Your task to perform on an android device: Open maps Image 0: 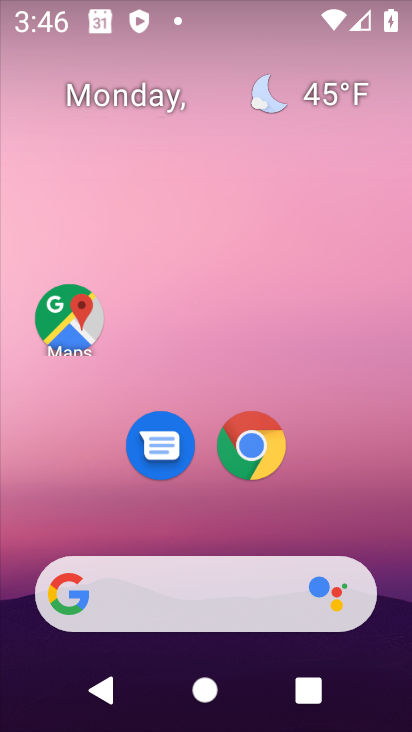
Step 0: drag from (281, 499) to (206, 16)
Your task to perform on an android device: Open maps Image 1: 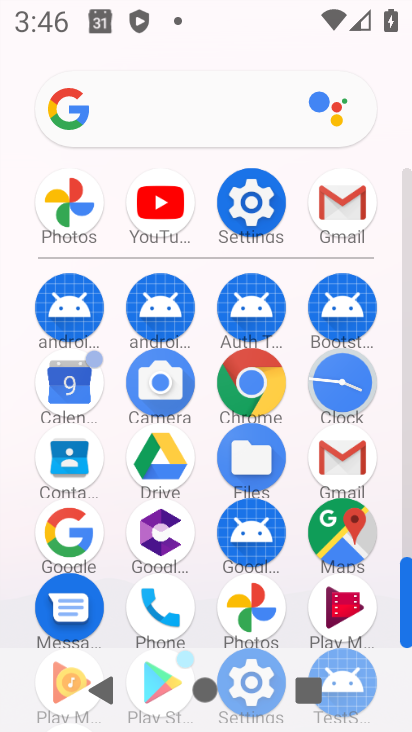
Step 1: click (340, 540)
Your task to perform on an android device: Open maps Image 2: 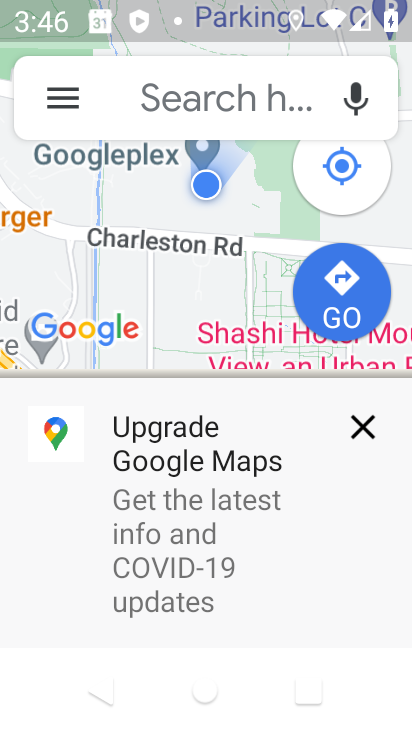
Step 2: click (358, 425)
Your task to perform on an android device: Open maps Image 3: 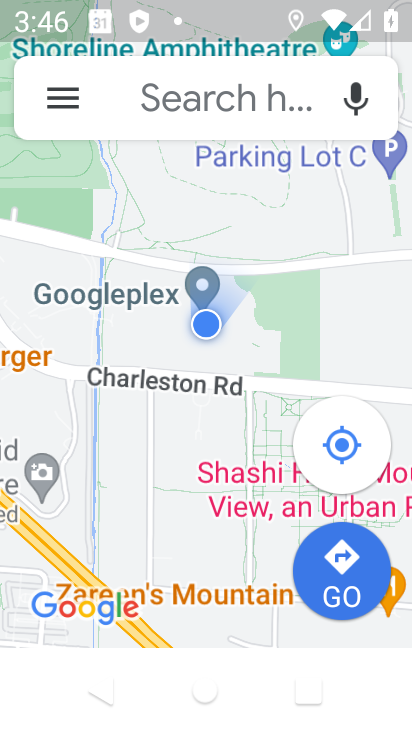
Step 3: task complete